Your task to perform on an android device: set the timer Image 0: 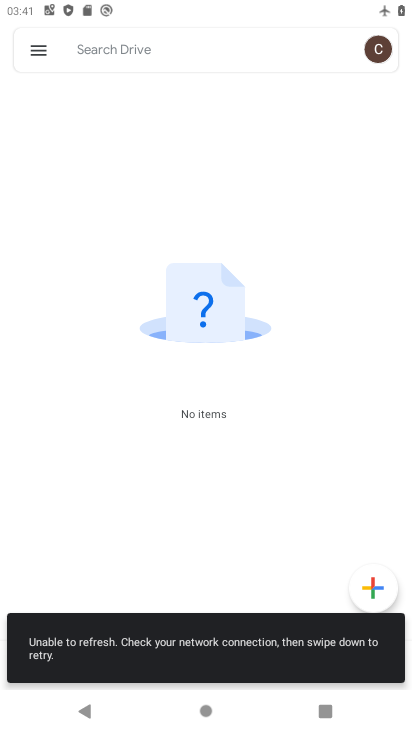
Step 0: press back button
Your task to perform on an android device: set the timer Image 1: 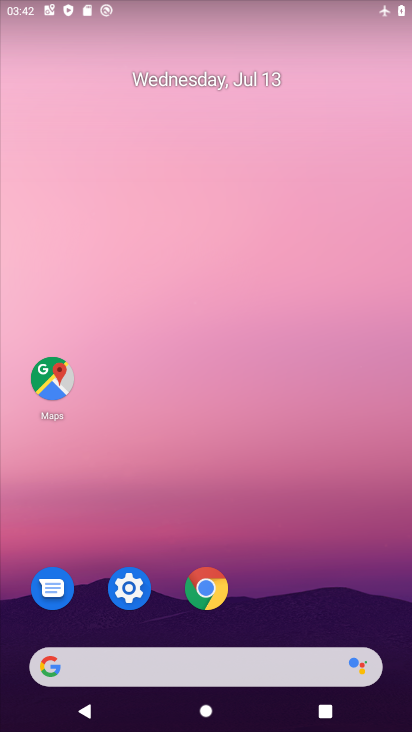
Step 1: drag from (258, 638) to (263, 206)
Your task to perform on an android device: set the timer Image 2: 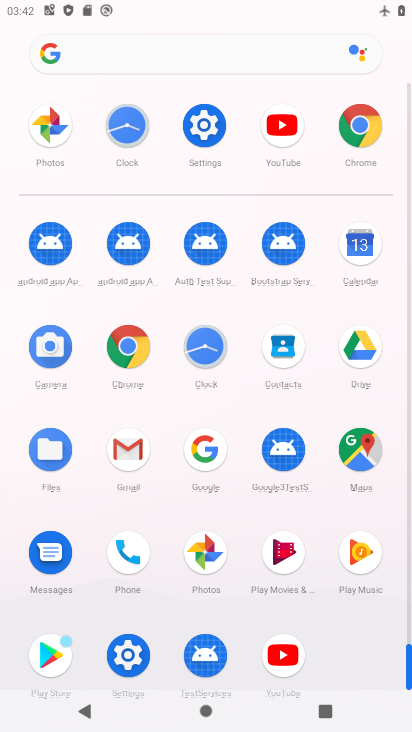
Step 2: click (200, 141)
Your task to perform on an android device: set the timer Image 3: 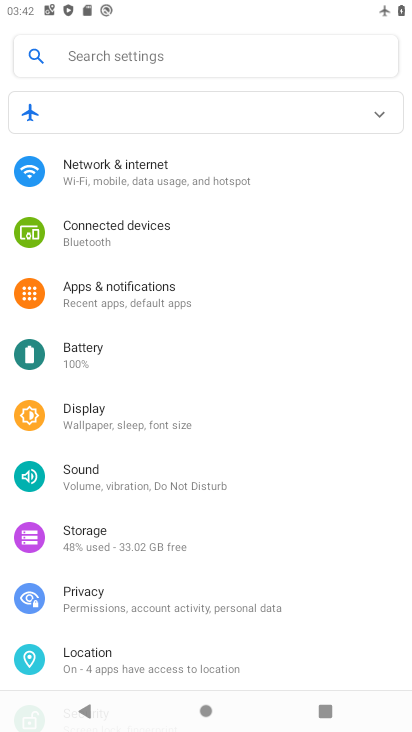
Step 3: drag from (116, 592) to (148, 199)
Your task to perform on an android device: set the timer Image 4: 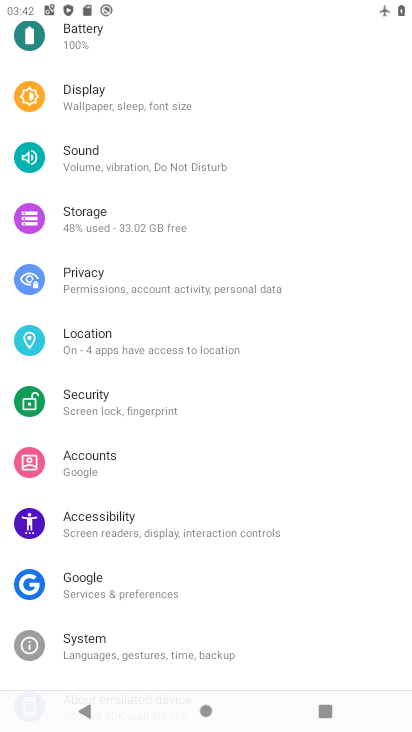
Step 4: drag from (145, 621) to (169, 307)
Your task to perform on an android device: set the timer Image 5: 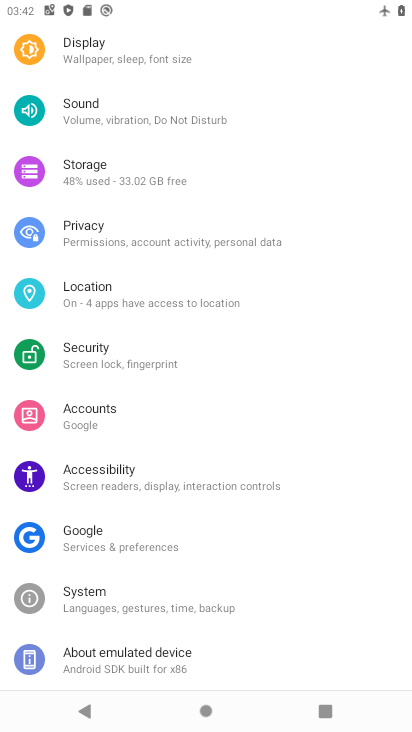
Step 5: drag from (96, 207) to (142, 562)
Your task to perform on an android device: set the timer Image 6: 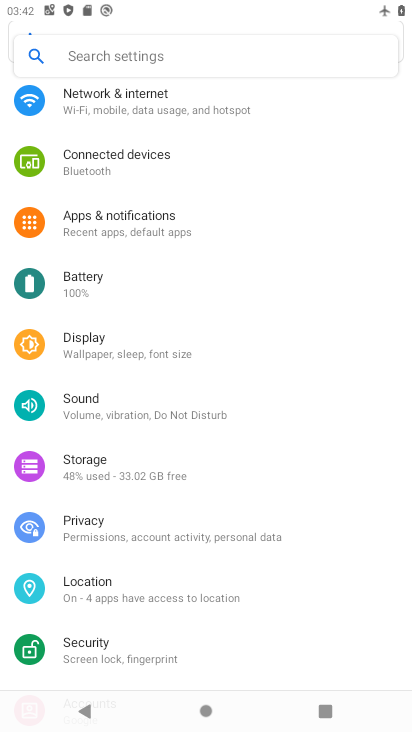
Step 6: drag from (132, 260) to (171, 647)
Your task to perform on an android device: set the timer Image 7: 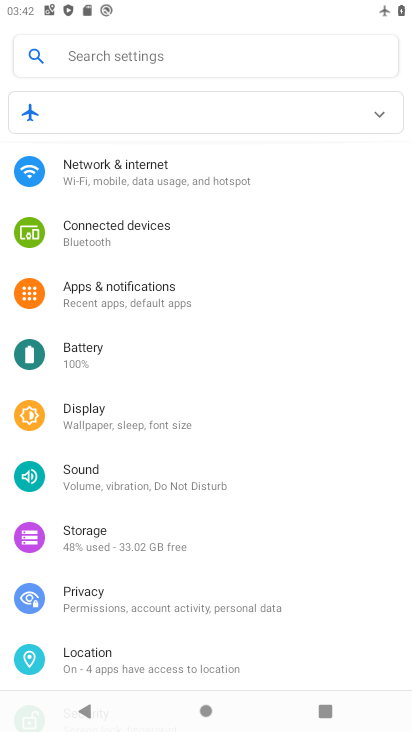
Step 7: drag from (172, 246) to (182, 513)
Your task to perform on an android device: set the timer Image 8: 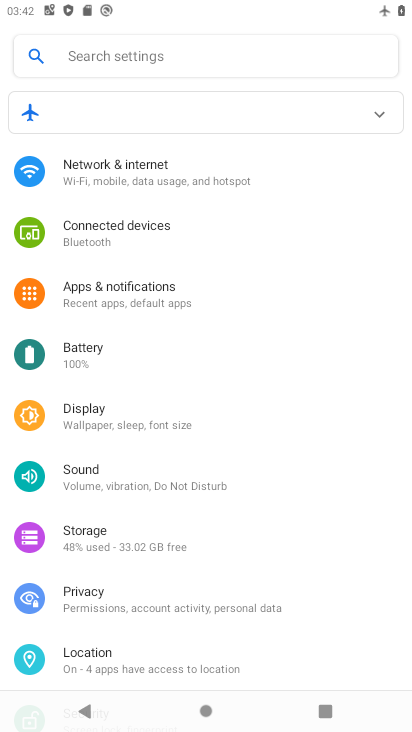
Step 8: press back button
Your task to perform on an android device: set the timer Image 9: 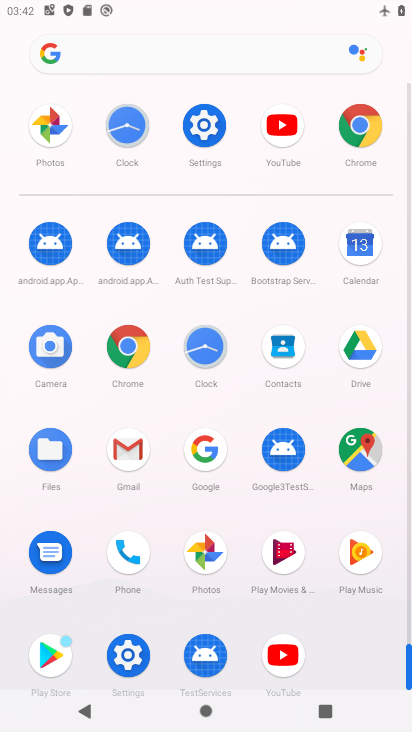
Step 9: click (209, 346)
Your task to perform on an android device: set the timer Image 10: 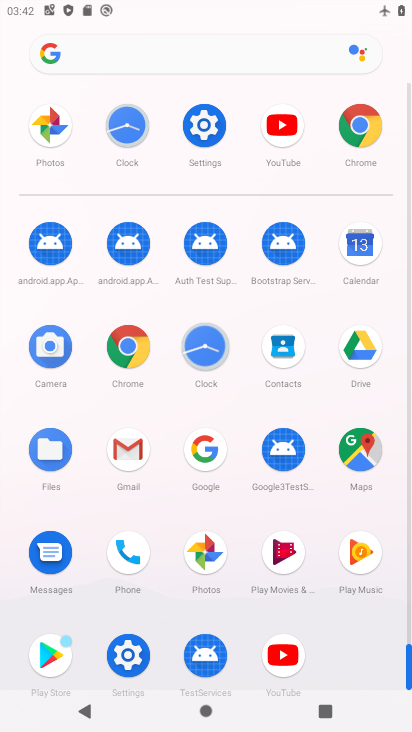
Step 10: click (209, 346)
Your task to perform on an android device: set the timer Image 11: 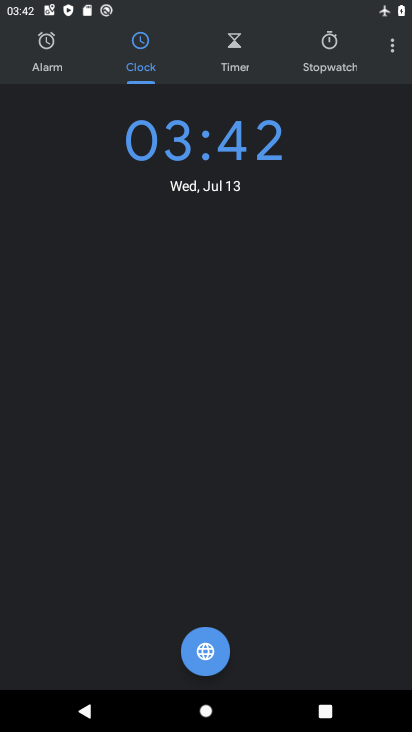
Step 11: click (209, 346)
Your task to perform on an android device: set the timer Image 12: 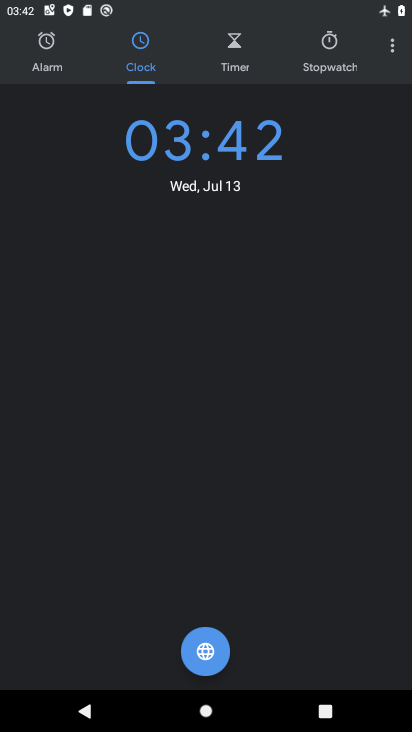
Step 12: click (209, 347)
Your task to perform on an android device: set the timer Image 13: 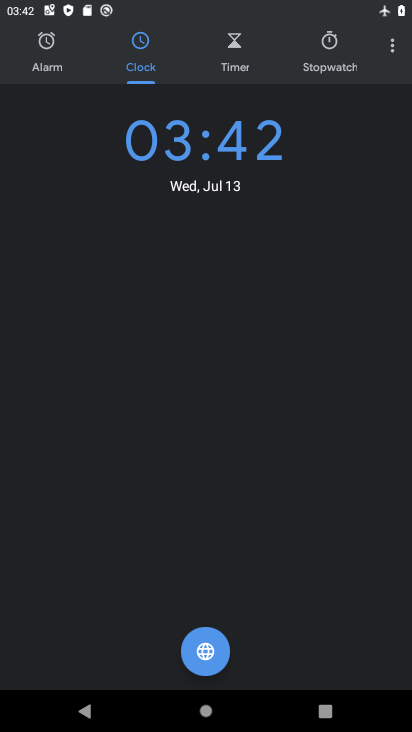
Step 13: click (390, 46)
Your task to perform on an android device: set the timer Image 14: 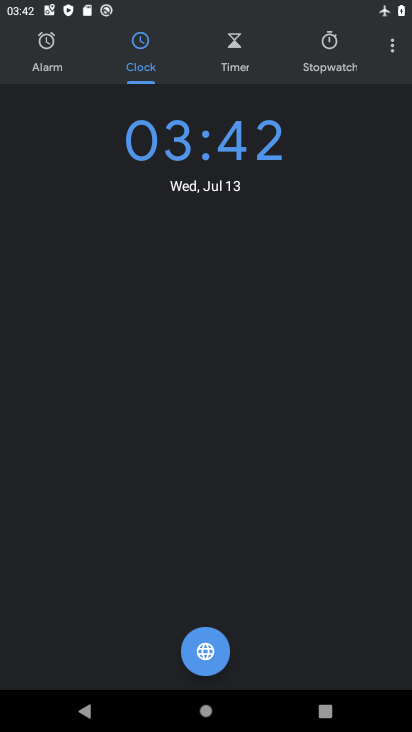
Step 14: click (389, 45)
Your task to perform on an android device: set the timer Image 15: 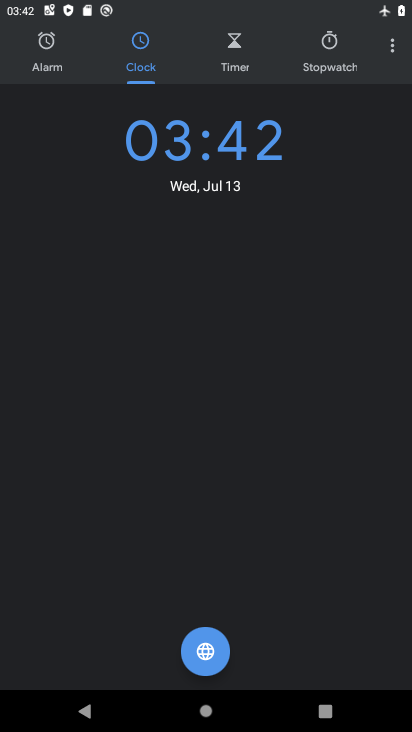
Step 15: click (232, 55)
Your task to perform on an android device: set the timer Image 16: 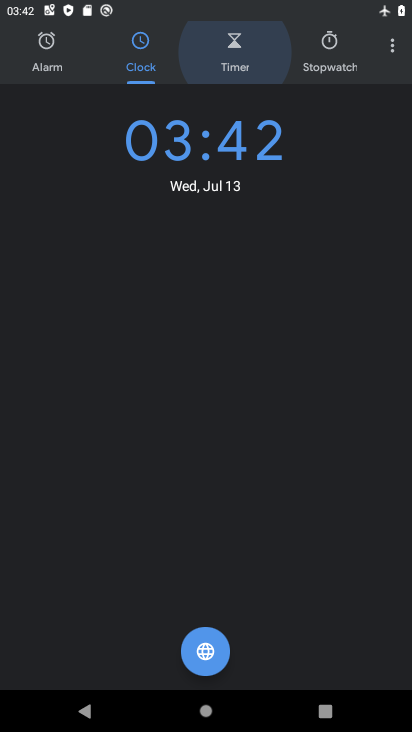
Step 16: click (228, 61)
Your task to perform on an android device: set the timer Image 17: 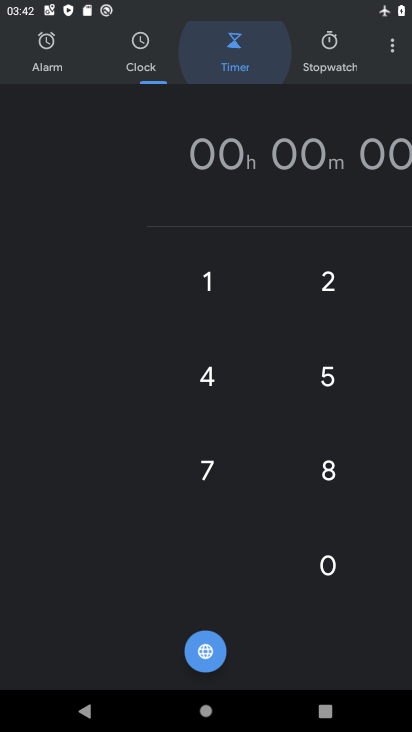
Step 17: click (227, 64)
Your task to perform on an android device: set the timer Image 18: 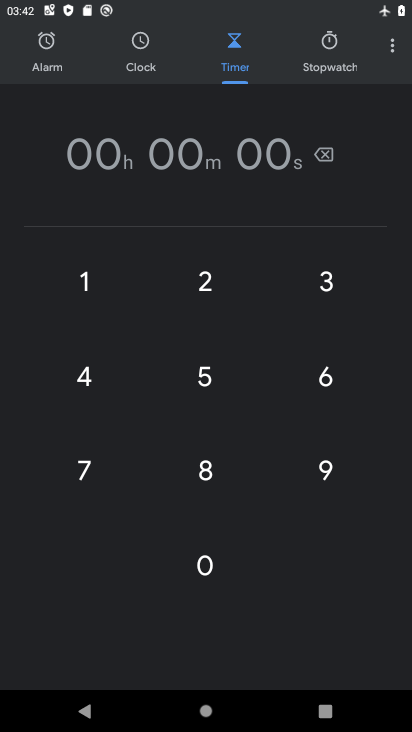
Step 18: click (207, 469)
Your task to perform on an android device: set the timer Image 19: 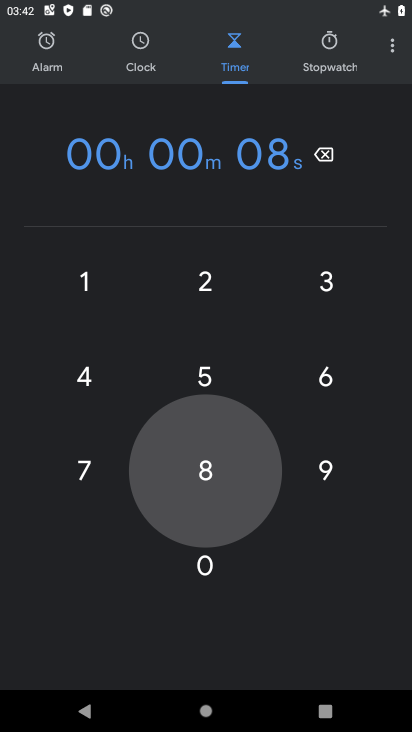
Step 19: click (206, 470)
Your task to perform on an android device: set the timer Image 20: 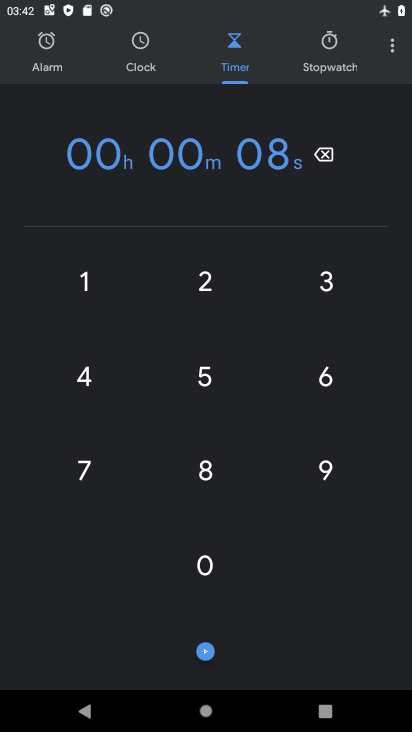
Step 20: click (206, 470)
Your task to perform on an android device: set the timer Image 21: 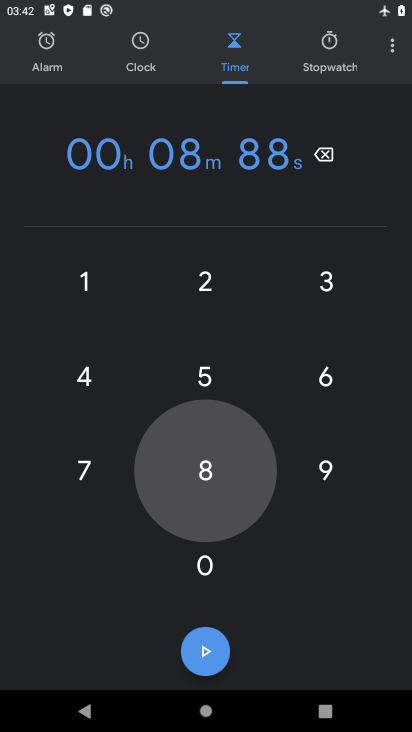
Step 21: click (207, 471)
Your task to perform on an android device: set the timer Image 22: 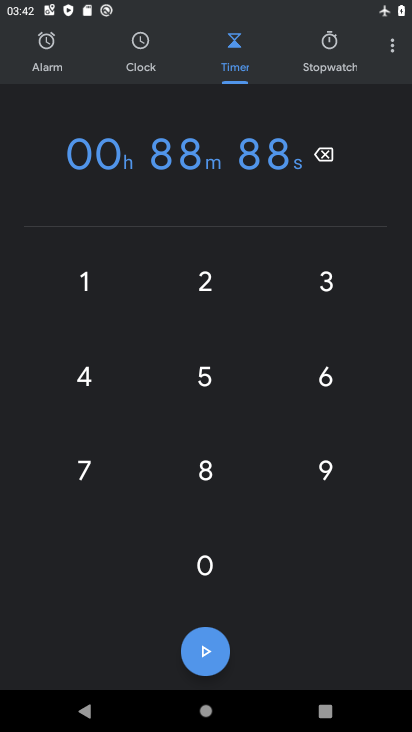
Step 22: click (207, 477)
Your task to perform on an android device: set the timer Image 23: 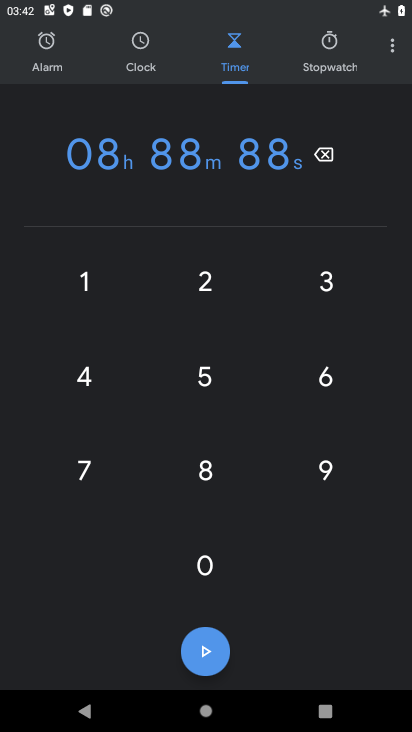
Step 23: click (210, 656)
Your task to perform on an android device: set the timer Image 24: 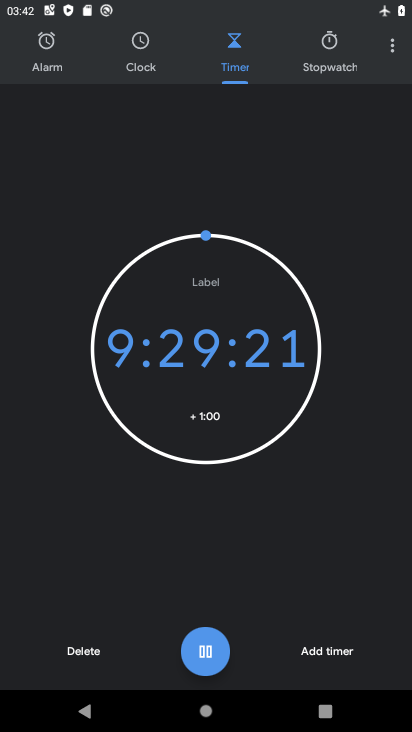
Step 24: click (198, 639)
Your task to perform on an android device: set the timer Image 25: 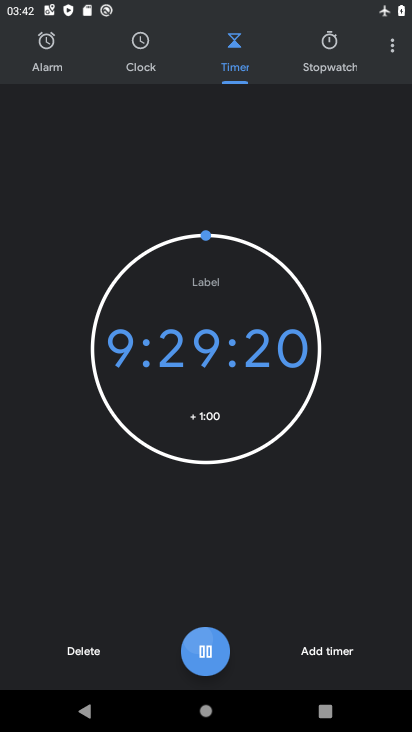
Step 25: click (211, 650)
Your task to perform on an android device: set the timer Image 26: 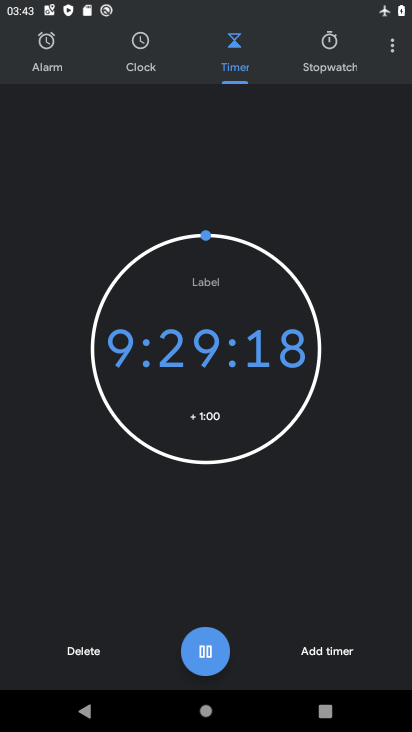
Step 26: click (205, 652)
Your task to perform on an android device: set the timer Image 27: 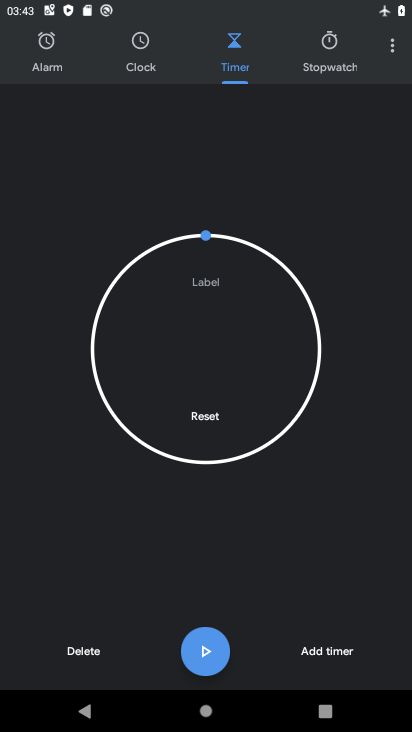
Step 27: task complete